Your task to perform on an android device: check battery use Image 0: 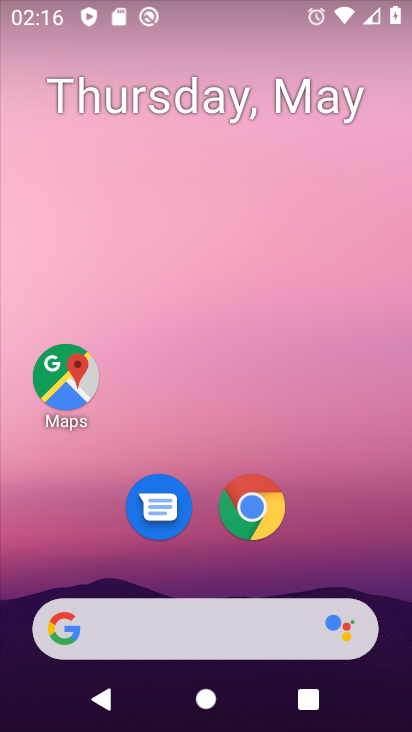
Step 0: drag from (387, 577) to (310, 139)
Your task to perform on an android device: check battery use Image 1: 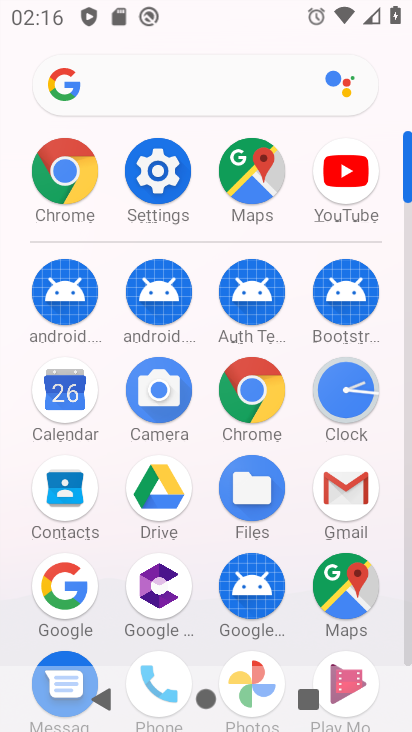
Step 1: click (170, 191)
Your task to perform on an android device: check battery use Image 2: 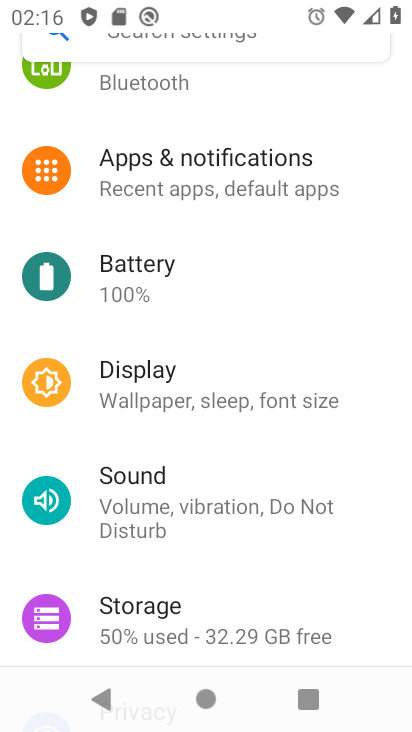
Step 2: click (163, 254)
Your task to perform on an android device: check battery use Image 3: 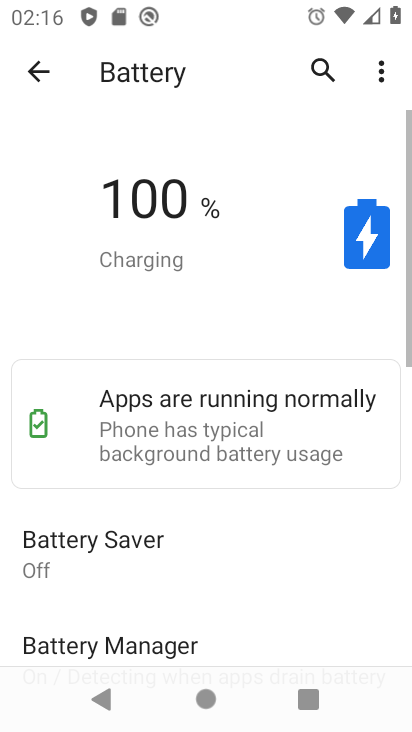
Step 3: task complete